Your task to perform on an android device: What's the weather today? Image 0: 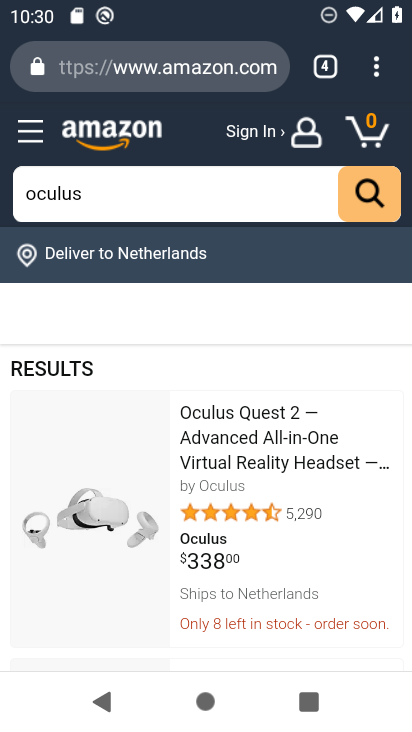
Step 0: press home button
Your task to perform on an android device: What's the weather today? Image 1: 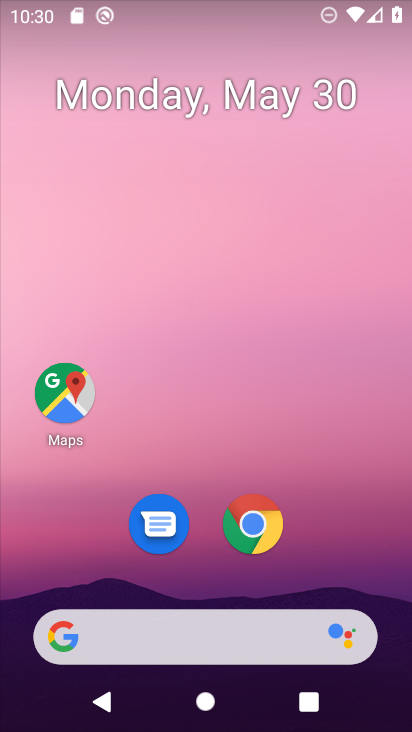
Step 1: click (261, 638)
Your task to perform on an android device: What's the weather today? Image 2: 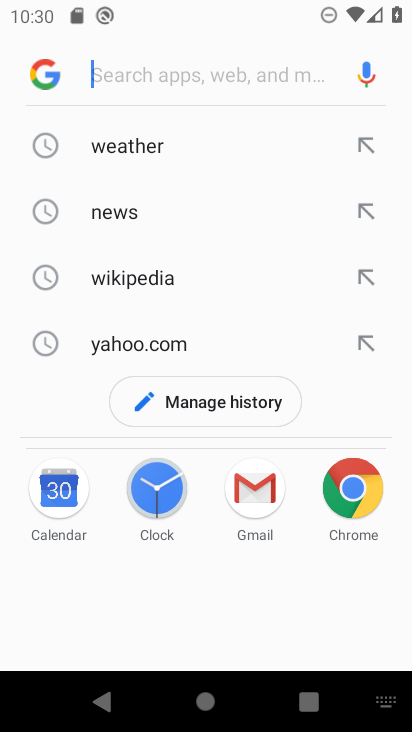
Step 2: click (118, 139)
Your task to perform on an android device: What's the weather today? Image 3: 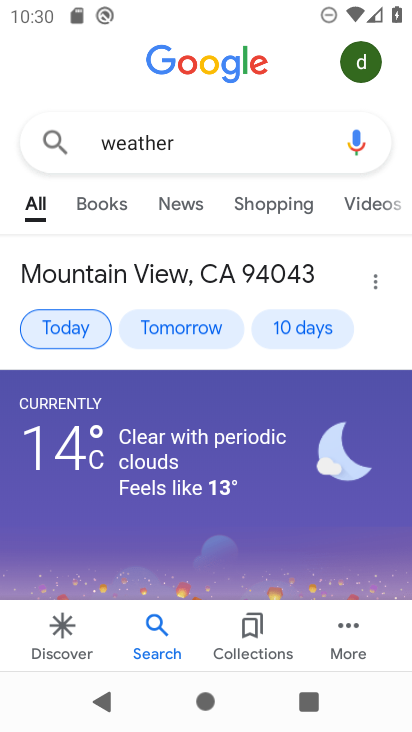
Step 3: click (86, 329)
Your task to perform on an android device: What's the weather today? Image 4: 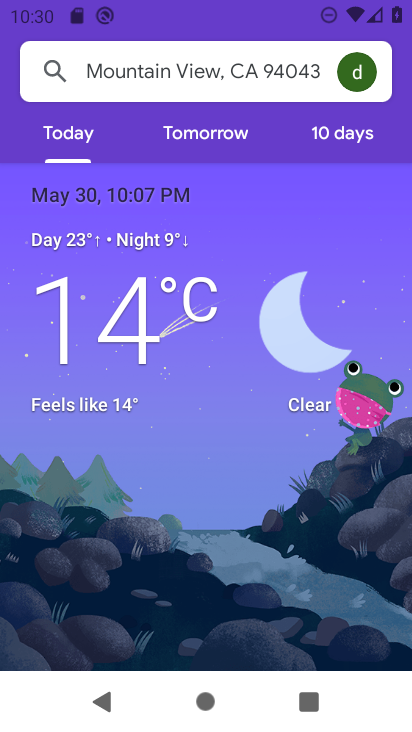
Step 4: task complete